Your task to perform on an android device: Check the news Image 0: 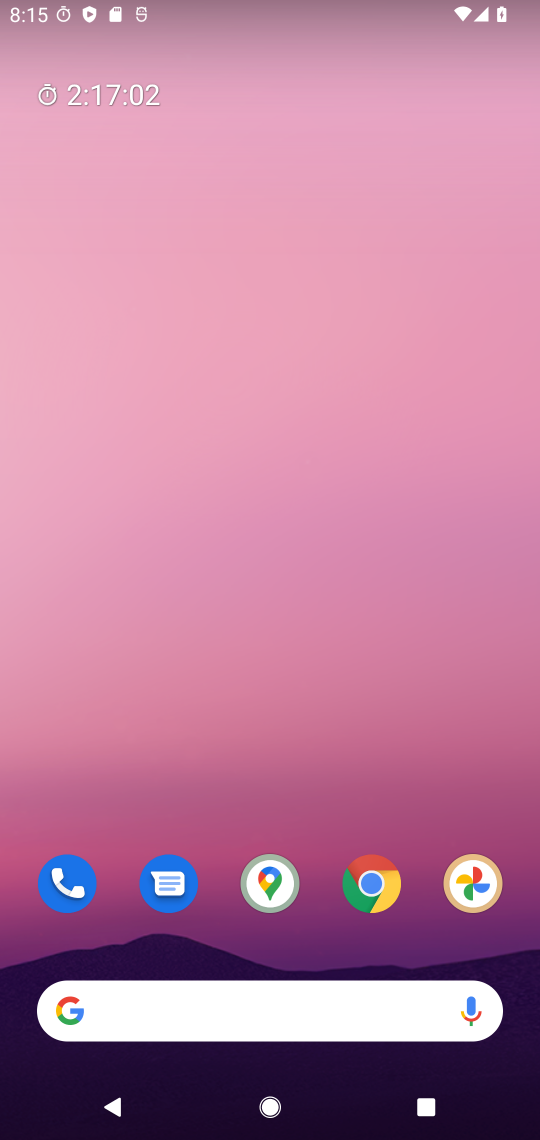
Step 0: drag from (295, 471) to (242, 11)
Your task to perform on an android device: Check the news Image 1: 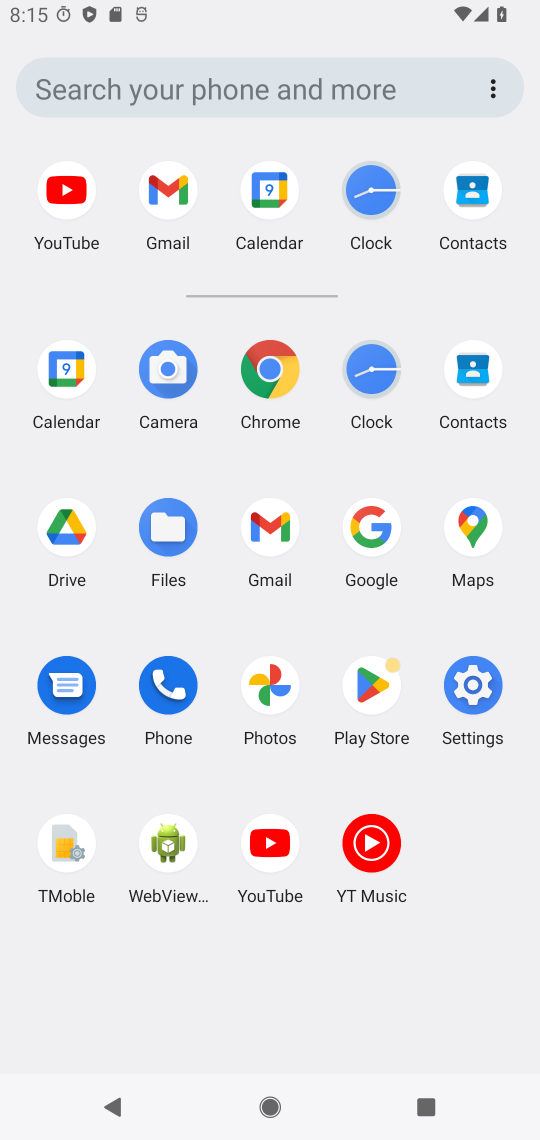
Step 1: click (360, 553)
Your task to perform on an android device: Check the news Image 2: 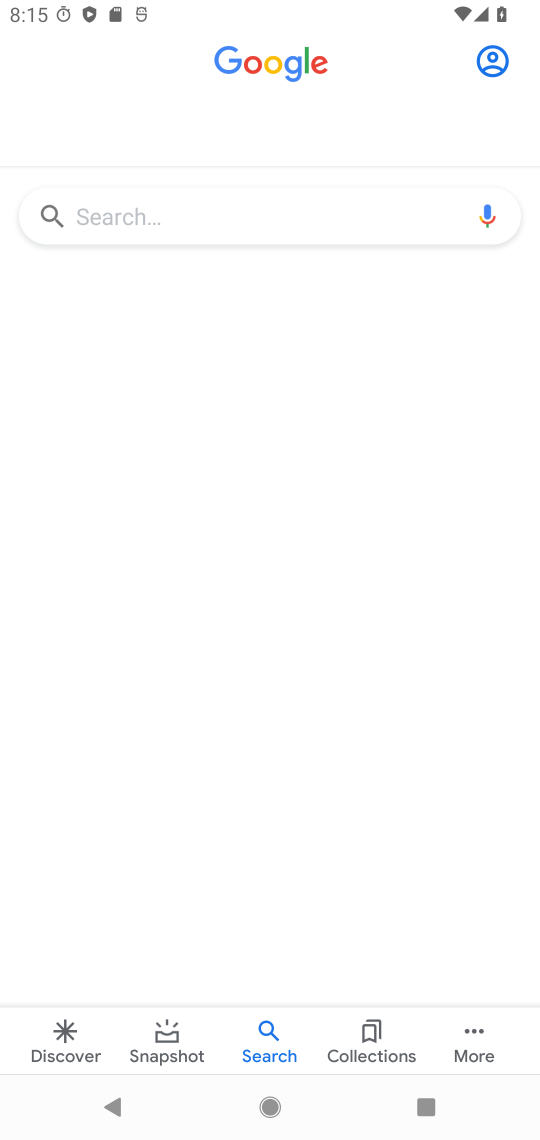
Step 2: click (288, 210)
Your task to perform on an android device: Check the news Image 3: 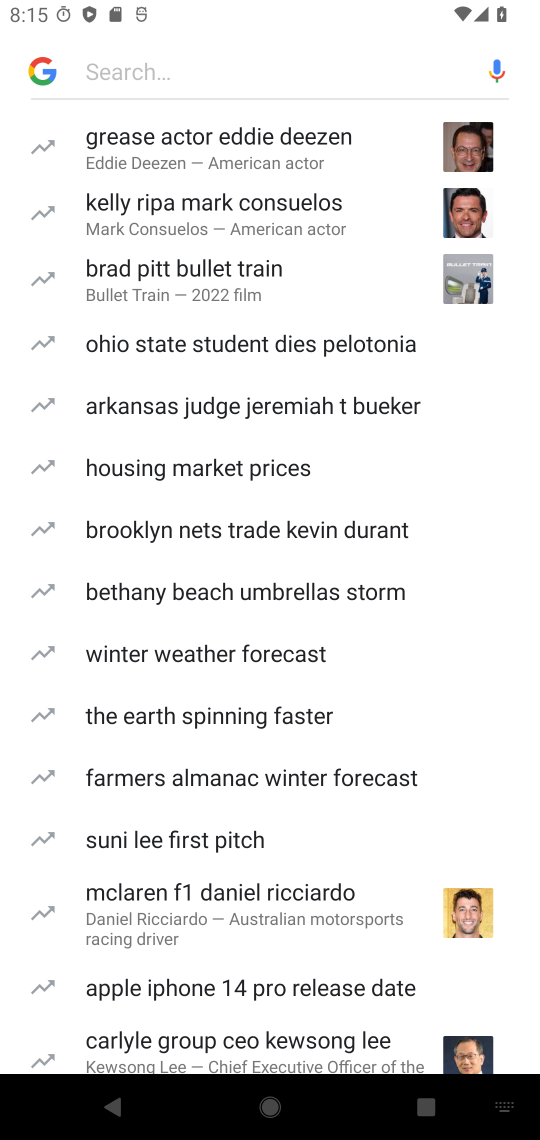
Step 3: type "news"
Your task to perform on an android device: Check the news Image 4: 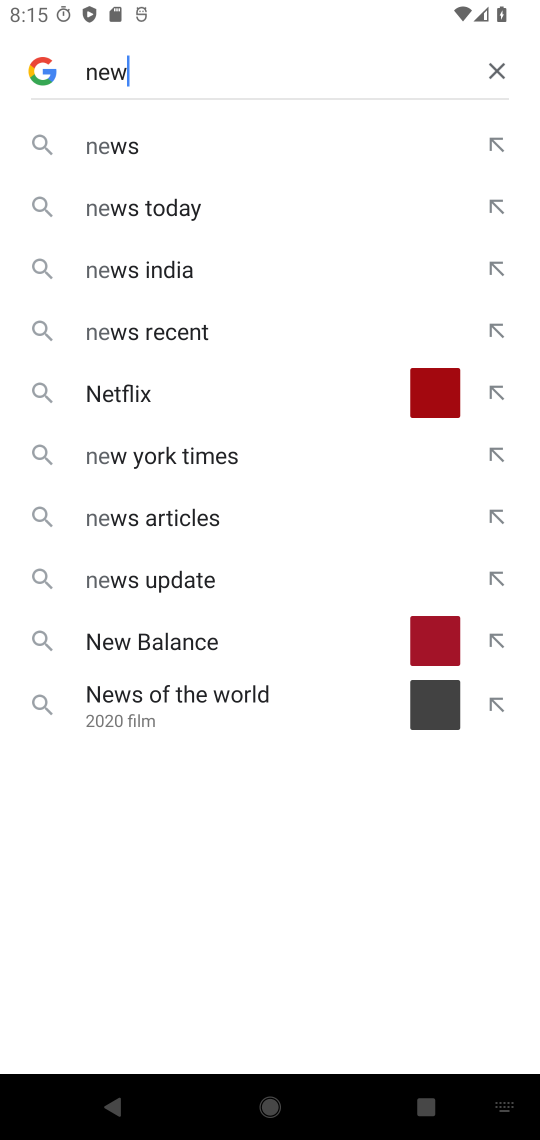
Step 4: type ""
Your task to perform on an android device: Check the news Image 5: 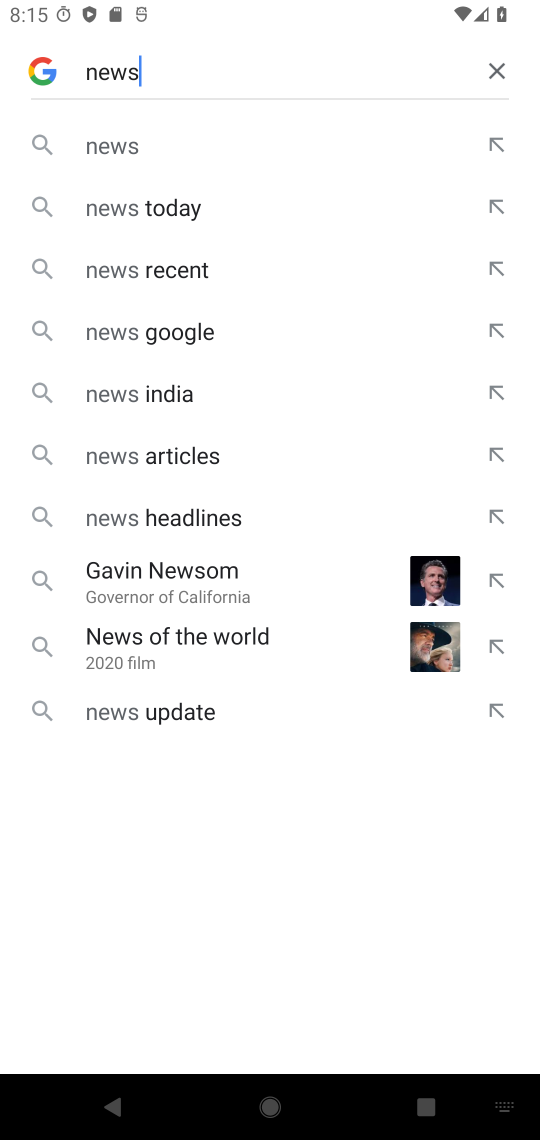
Step 5: click (106, 137)
Your task to perform on an android device: Check the news Image 6: 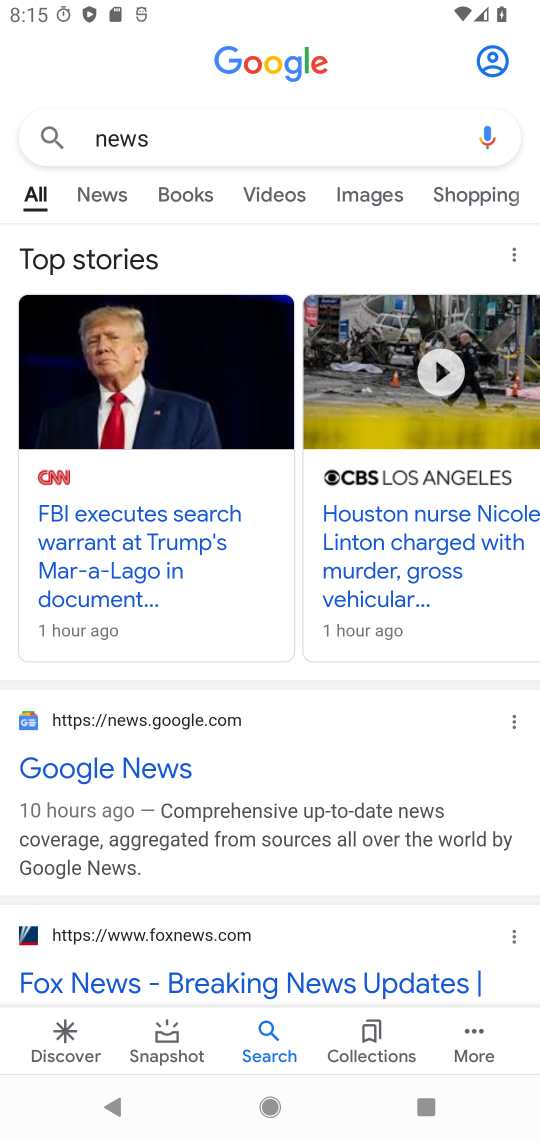
Step 6: click (104, 197)
Your task to perform on an android device: Check the news Image 7: 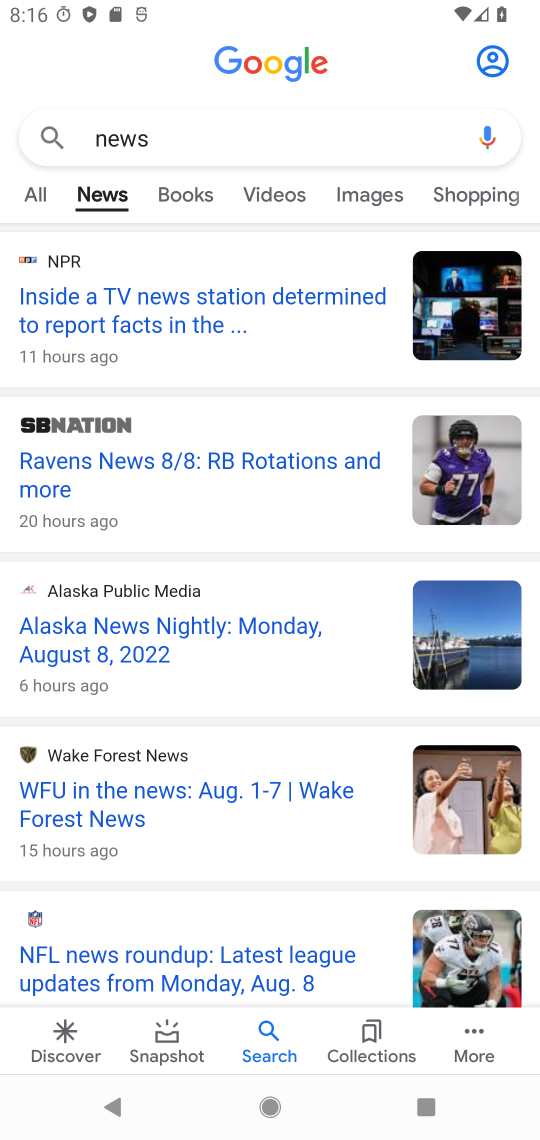
Step 7: task complete